Your task to perform on an android device: open a bookmark in the chrome app Image 0: 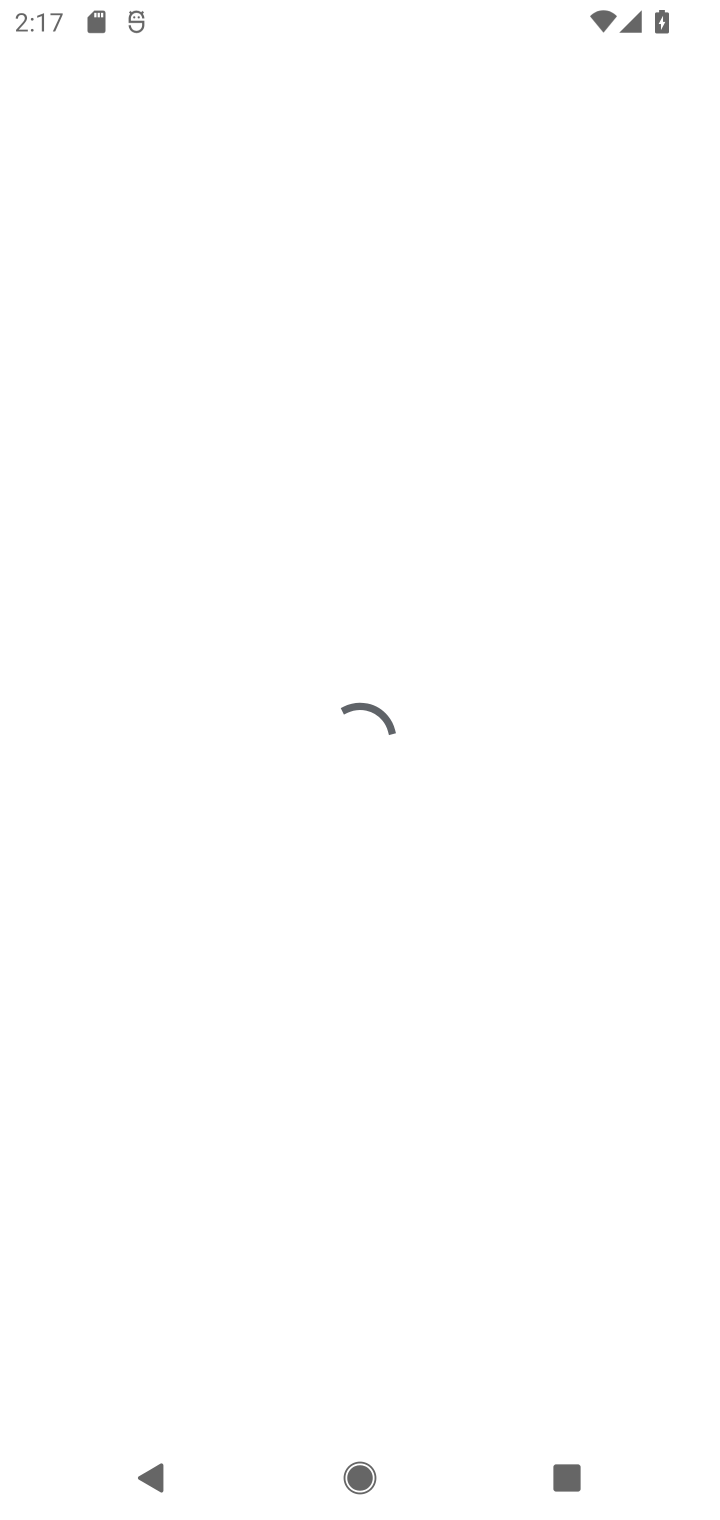
Step 0: press home button
Your task to perform on an android device: open a bookmark in the chrome app Image 1: 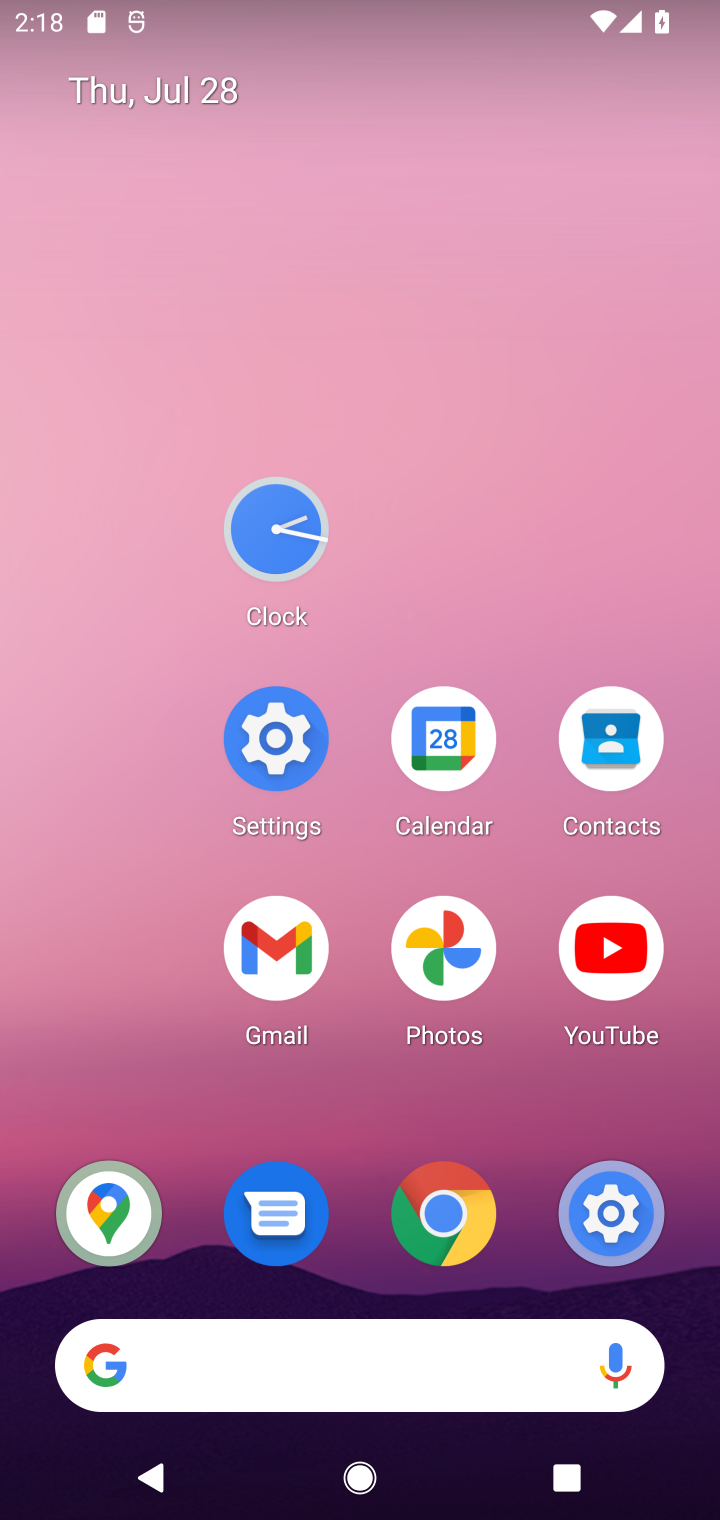
Step 1: click (443, 1216)
Your task to perform on an android device: open a bookmark in the chrome app Image 2: 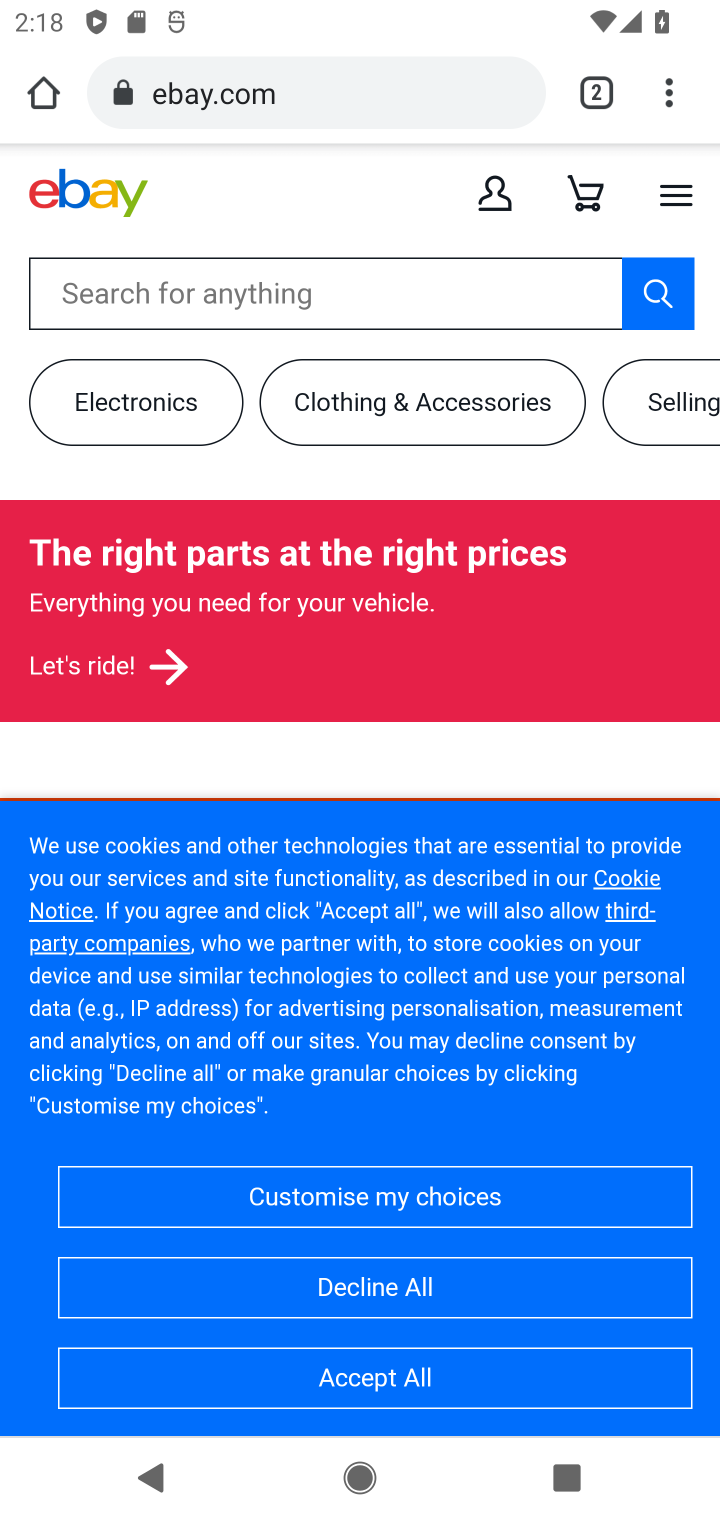
Step 2: click (667, 101)
Your task to perform on an android device: open a bookmark in the chrome app Image 3: 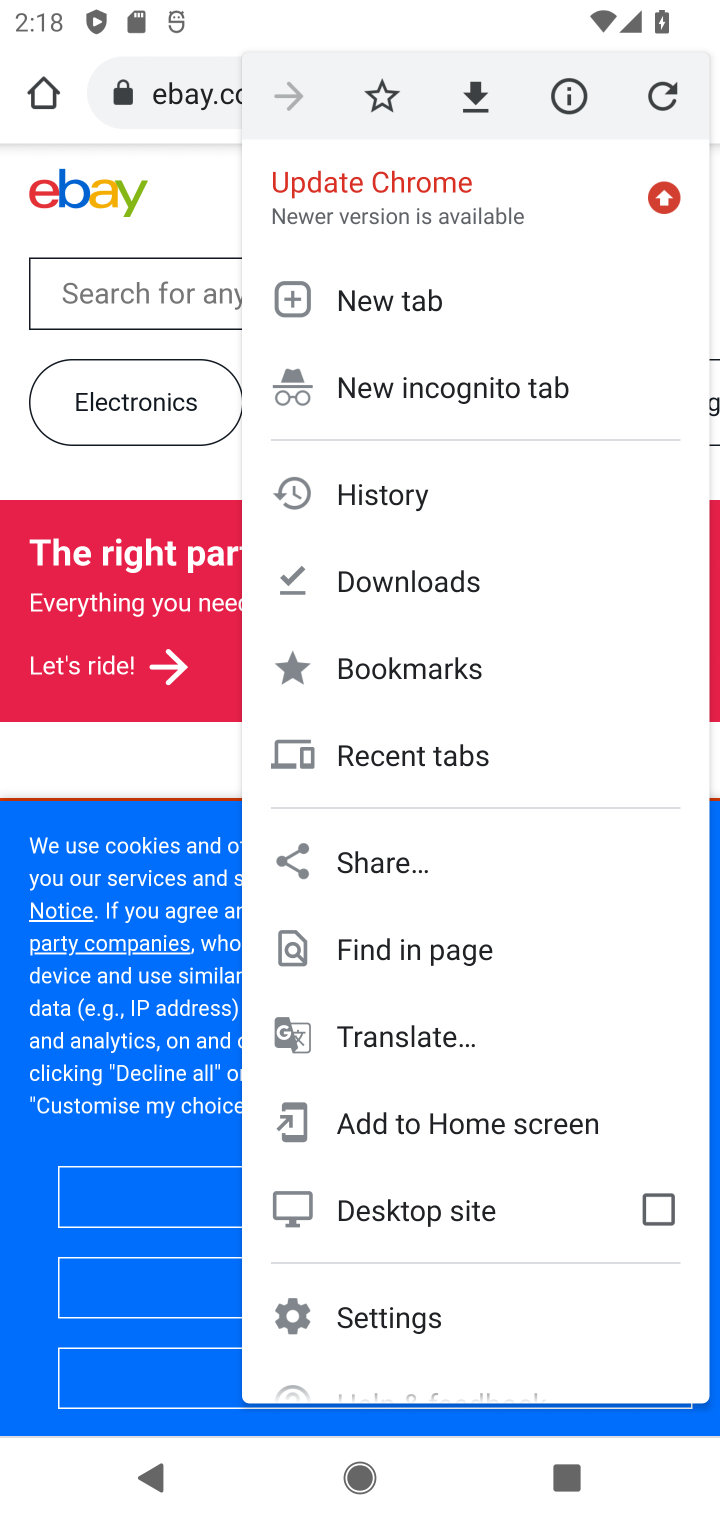
Step 3: click (391, 665)
Your task to perform on an android device: open a bookmark in the chrome app Image 4: 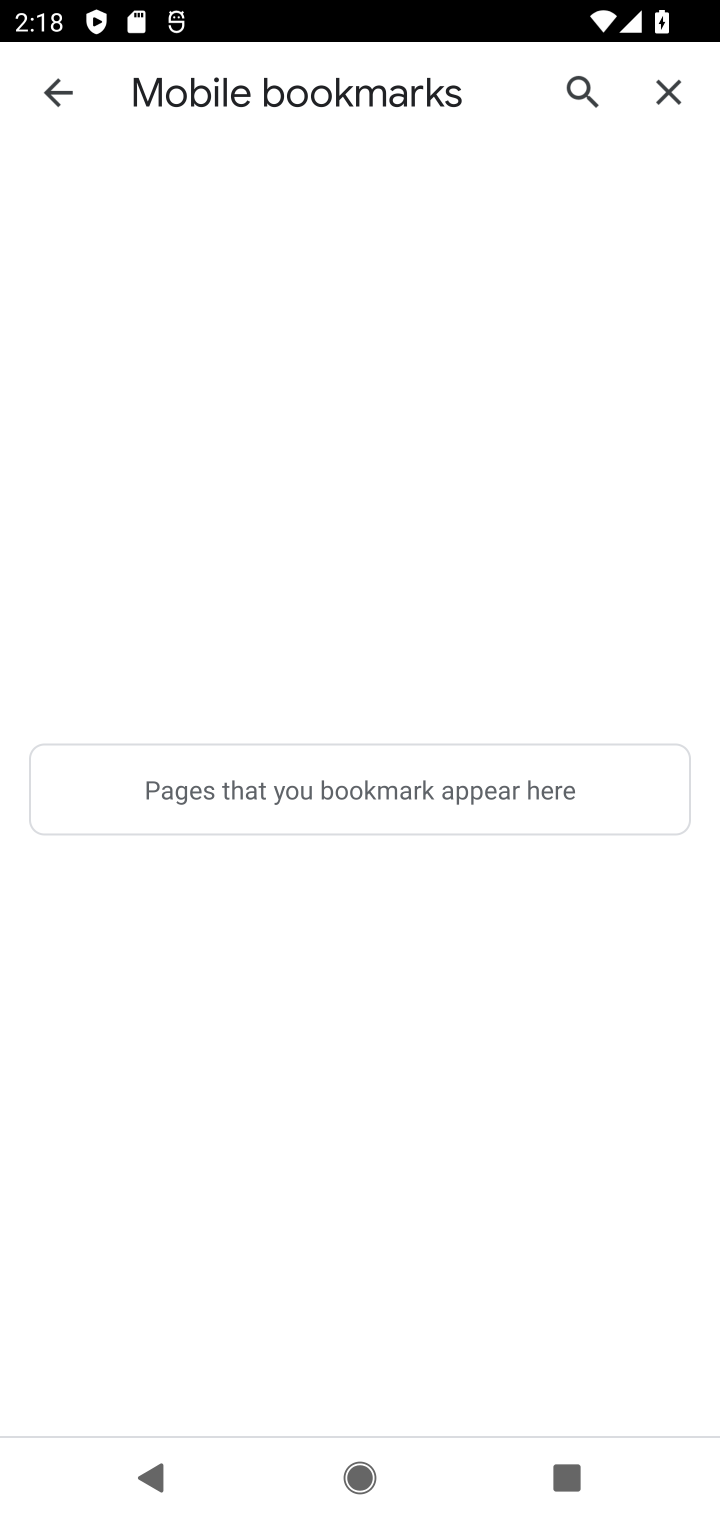
Step 4: task complete